Your task to perform on an android device: Open battery settings Image 0: 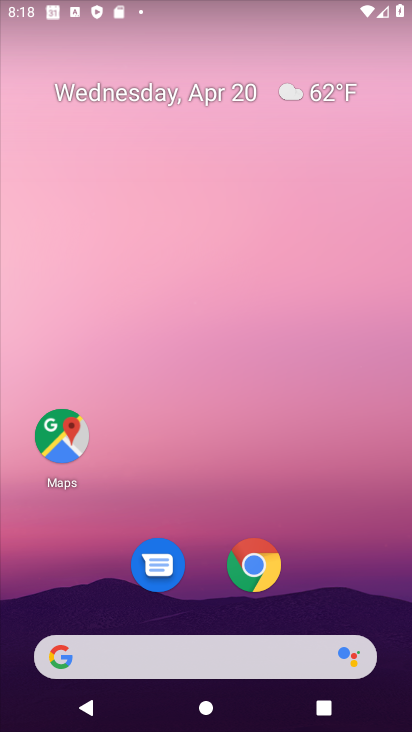
Step 0: drag from (340, 592) to (327, 184)
Your task to perform on an android device: Open battery settings Image 1: 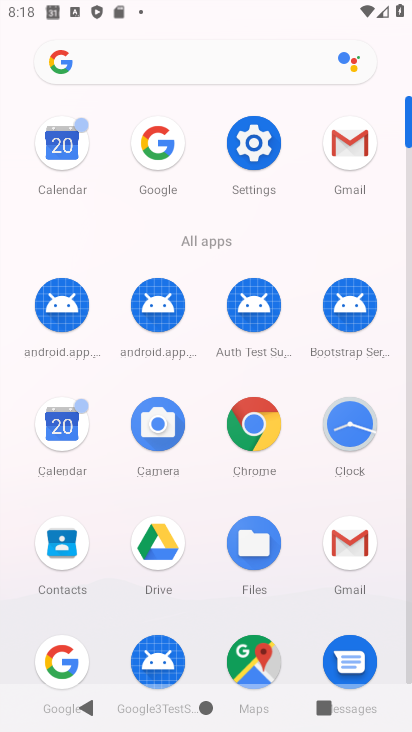
Step 1: click (245, 142)
Your task to perform on an android device: Open battery settings Image 2: 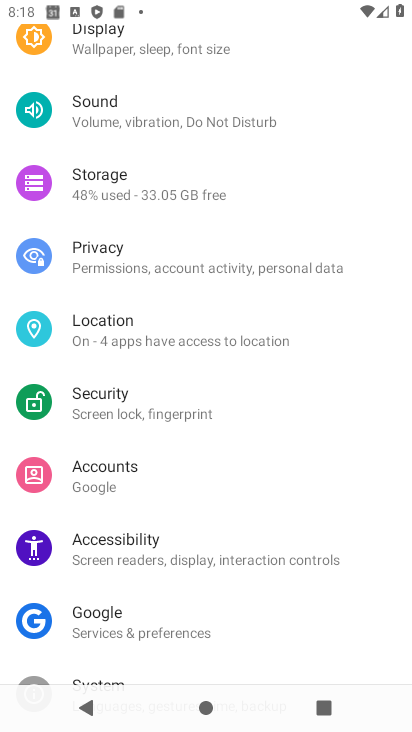
Step 2: drag from (192, 218) to (215, 562)
Your task to perform on an android device: Open battery settings Image 3: 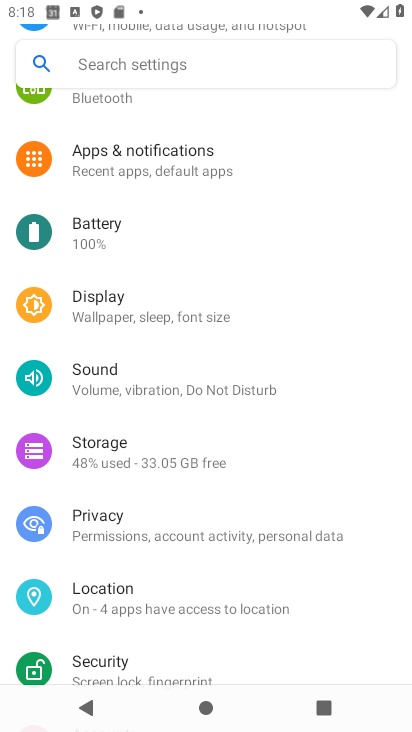
Step 3: click (87, 238)
Your task to perform on an android device: Open battery settings Image 4: 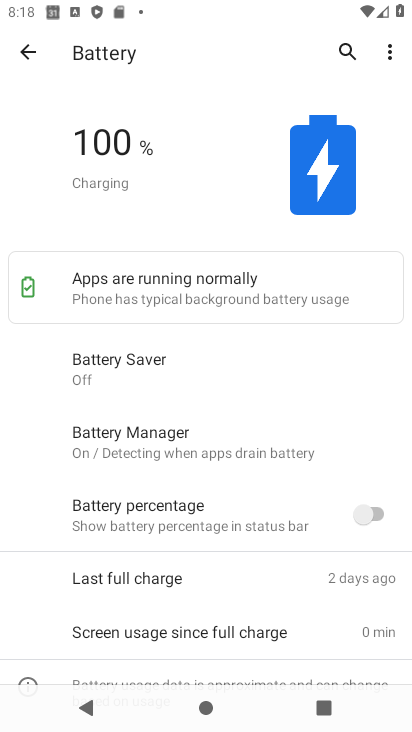
Step 4: task complete